Your task to perform on an android device: View the shopping cart on amazon. Add apple airpods pro to the cart on amazon Image 0: 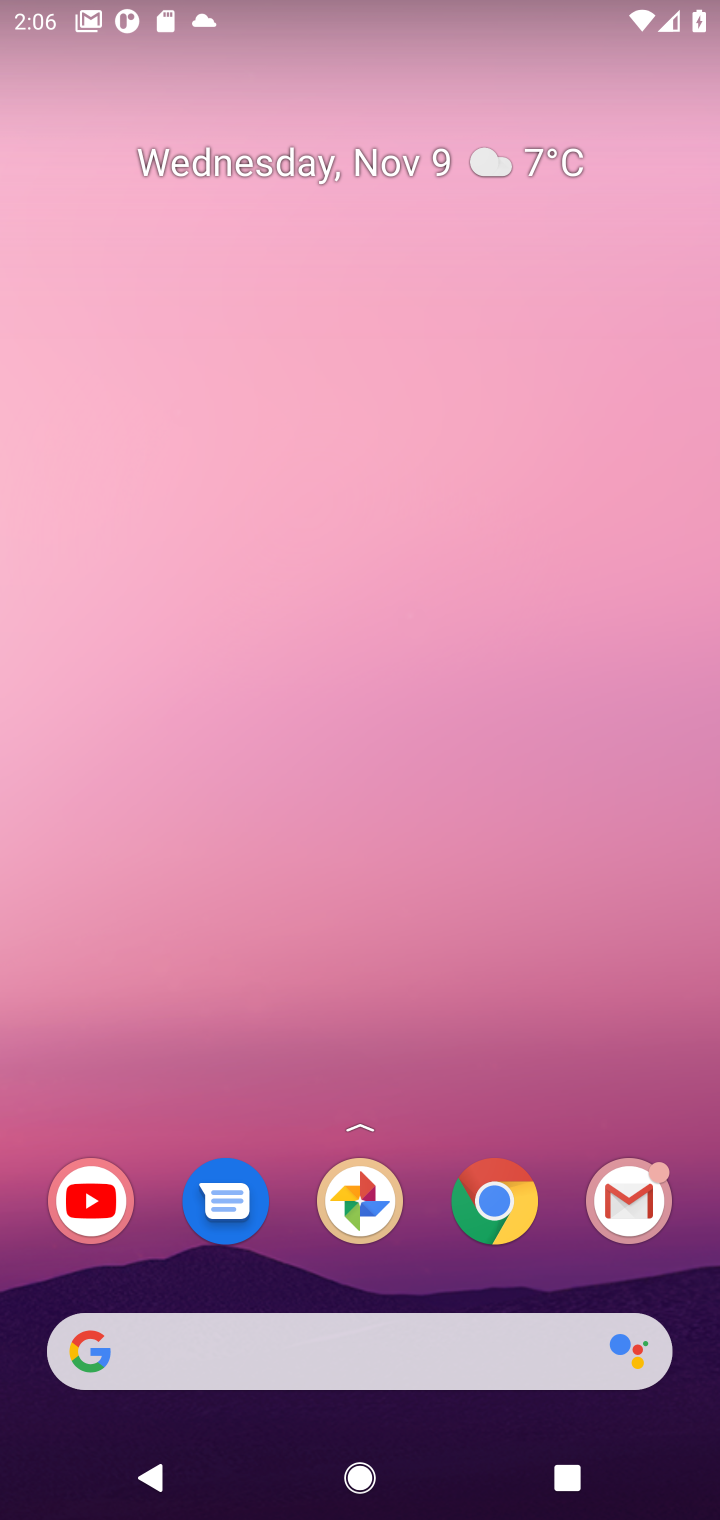
Step 0: click (281, 1364)
Your task to perform on an android device: View the shopping cart on amazon. Add apple airpods pro to the cart on amazon Image 1: 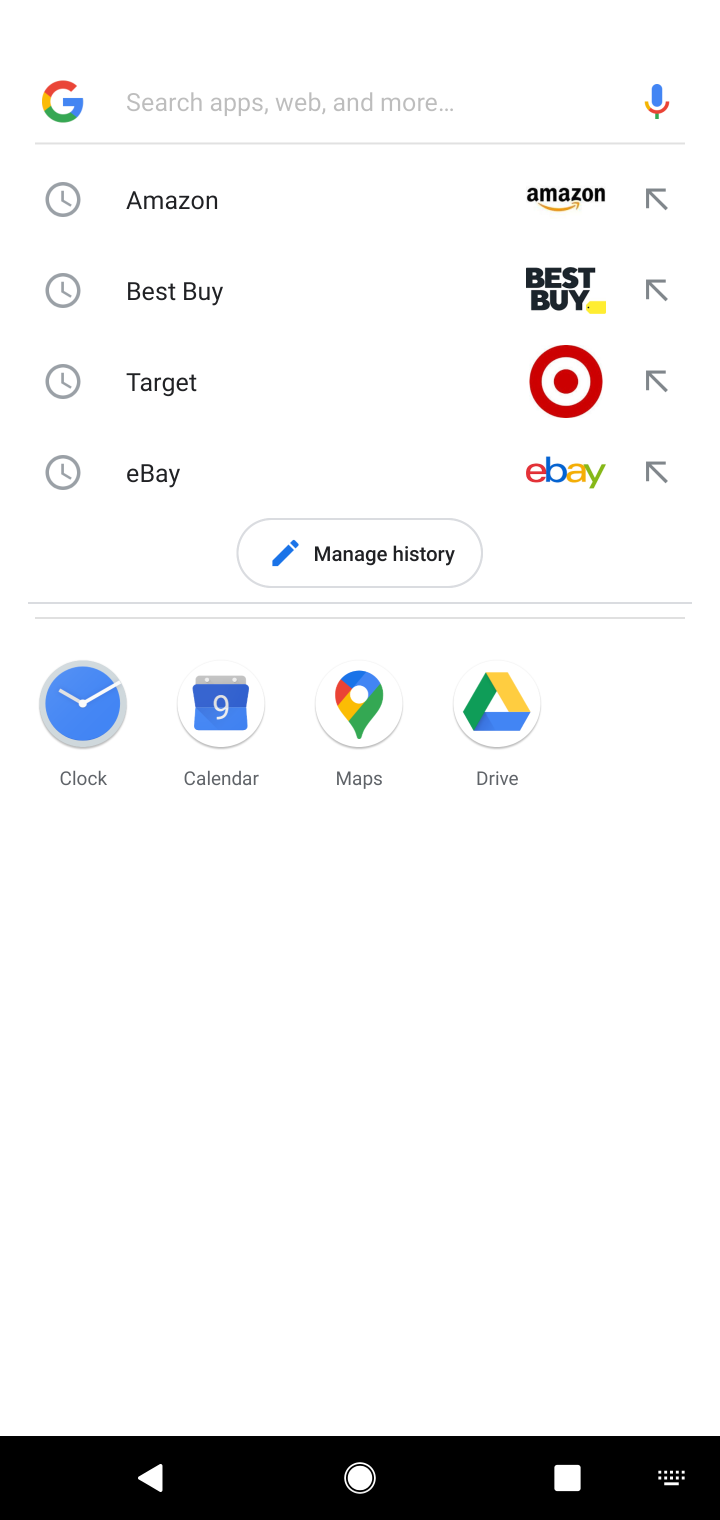
Step 1: click (263, 182)
Your task to perform on an android device: View the shopping cart on amazon. Add apple airpods pro to the cart on amazon Image 2: 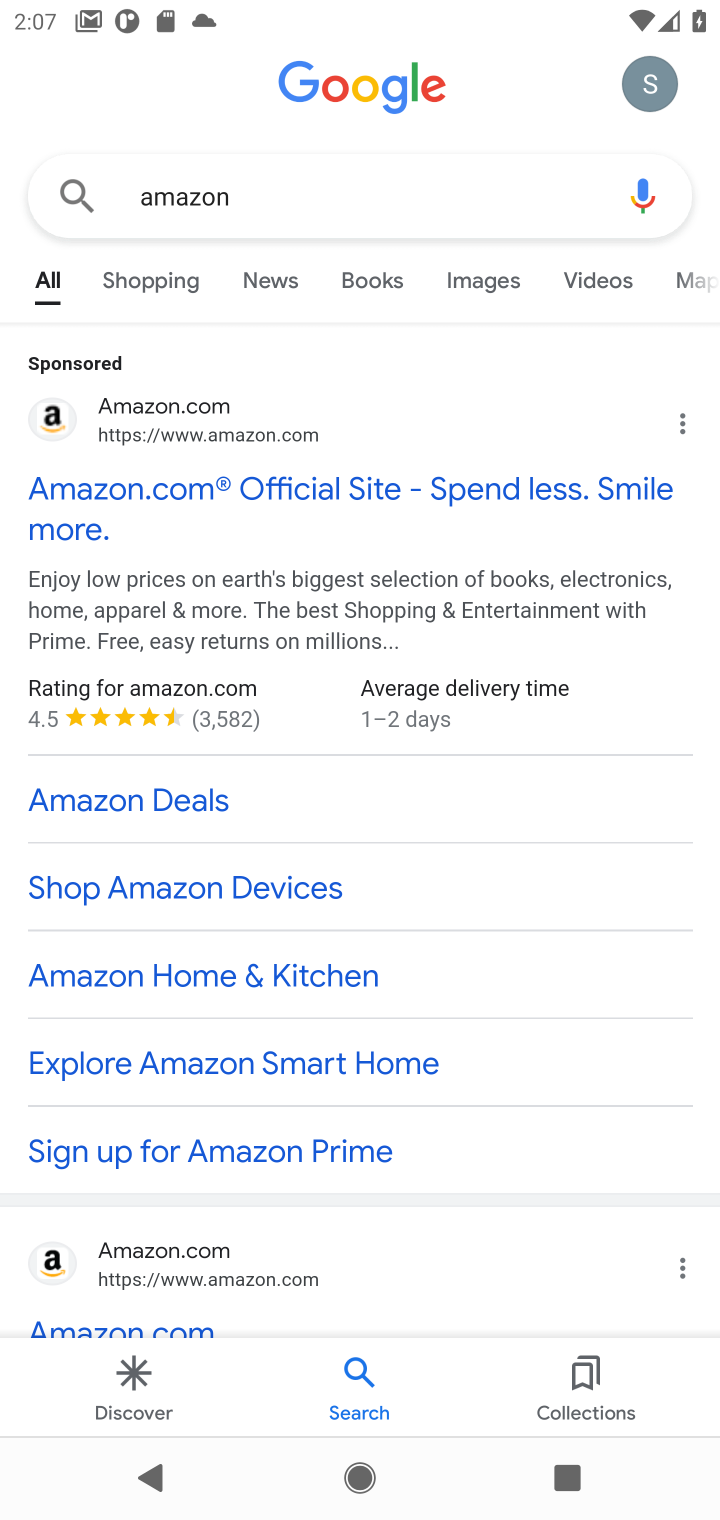
Step 2: click (183, 418)
Your task to perform on an android device: View the shopping cart on amazon. Add apple airpods pro to the cart on amazon Image 3: 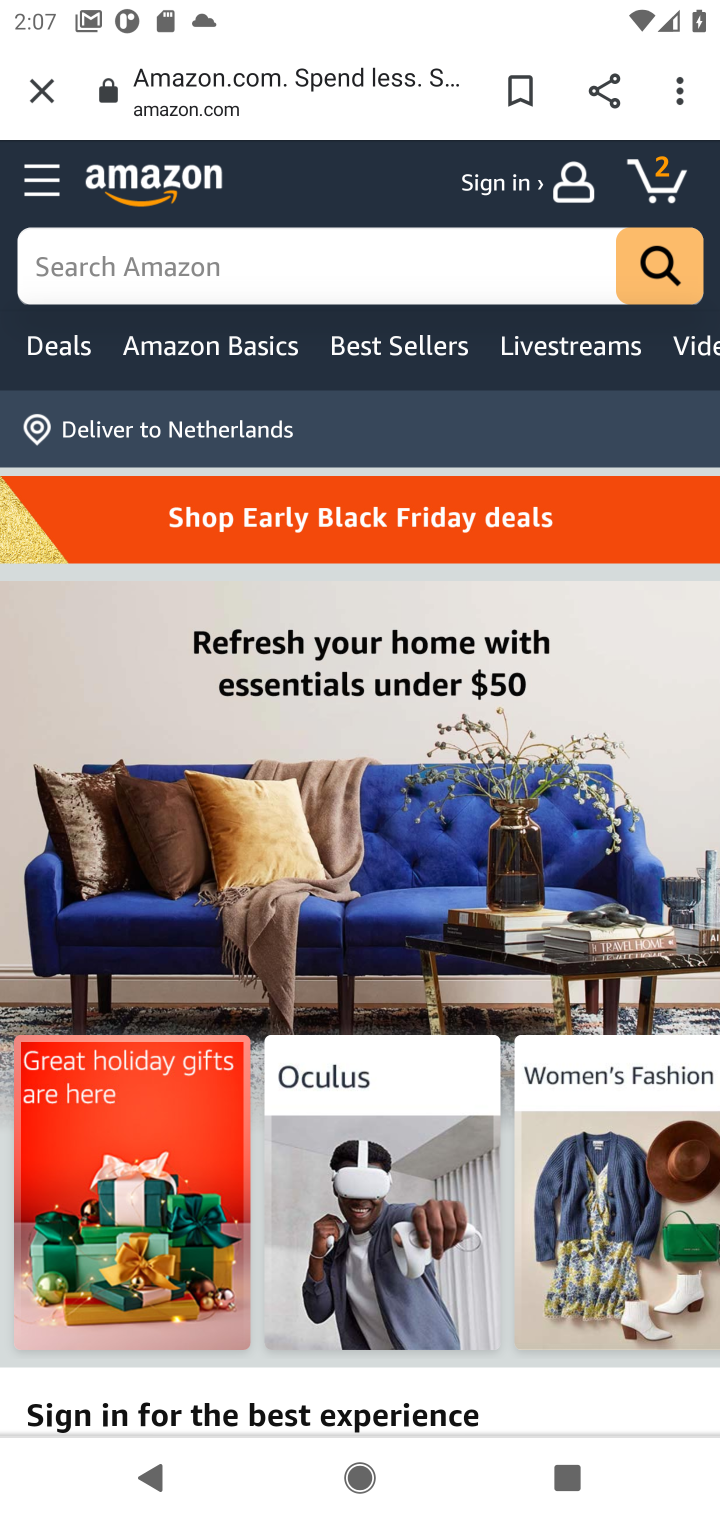
Step 3: click (282, 257)
Your task to perform on an android device: View the shopping cart on amazon. Add apple airpods pro to the cart on amazon Image 4: 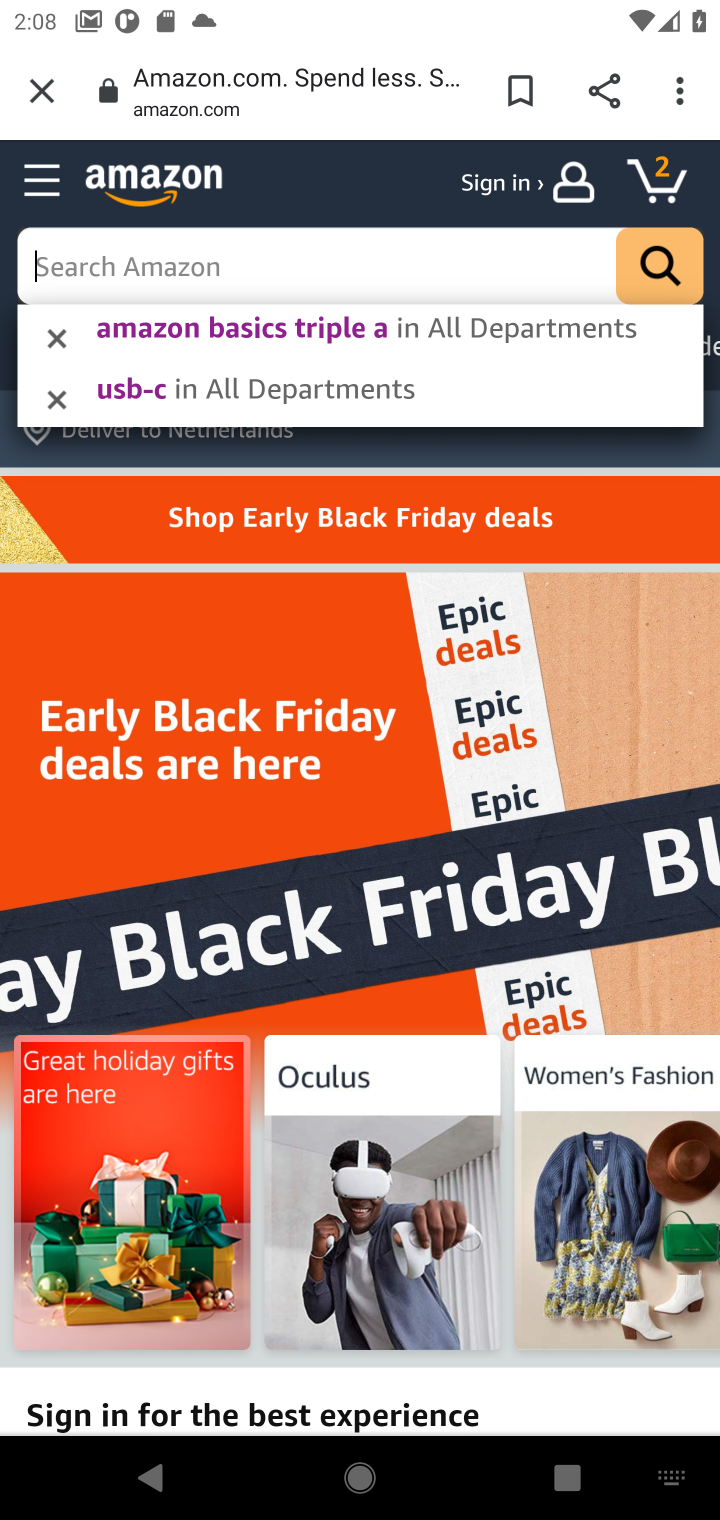
Step 4: type "apple airpods pro "
Your task to perform on an android device: View the shopping cart on amazon. Add apple airpods pro to the cart on amazon Image 5: 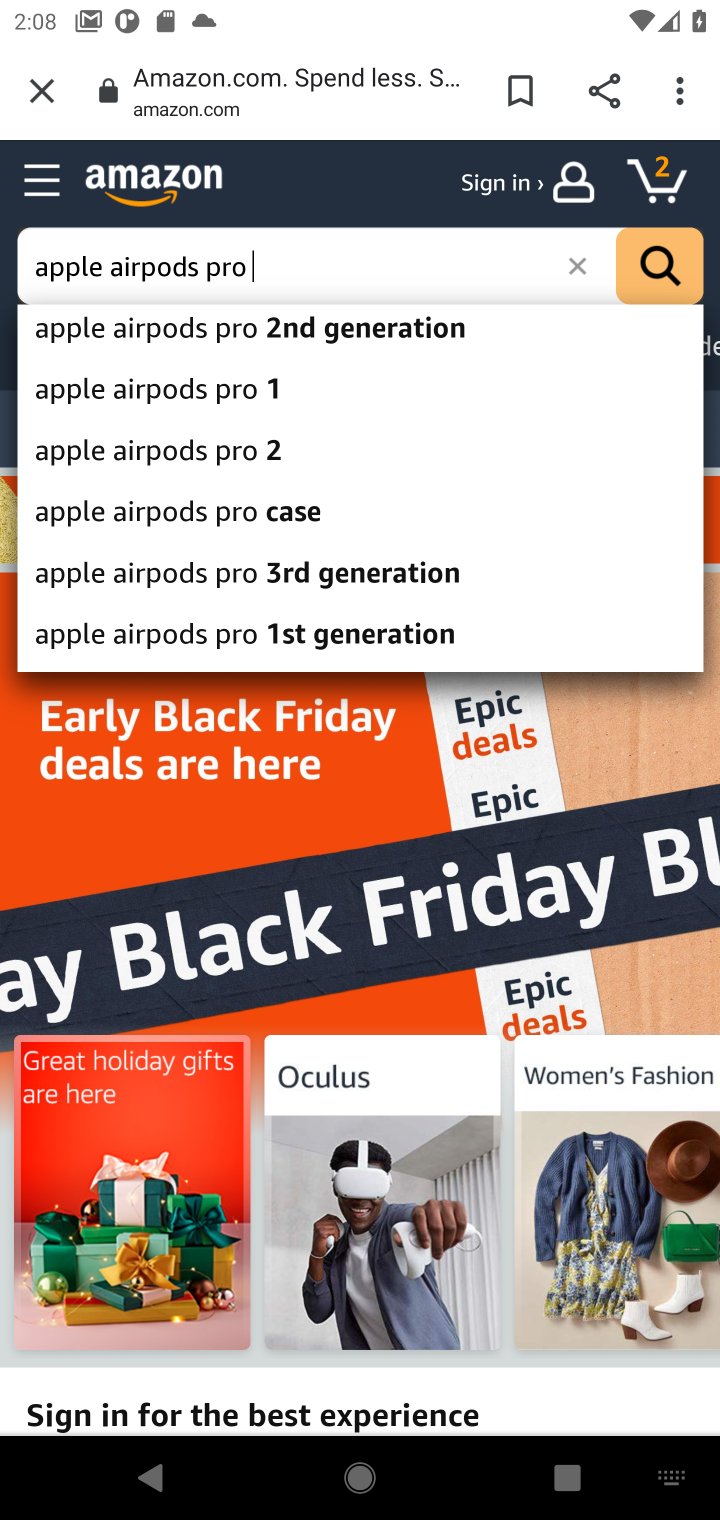
Step 5: click (244, 388)
Your task to perform on an android device: View the shopping cart on amazon. Add apple airpods pro to the cart on amazon Image 6: 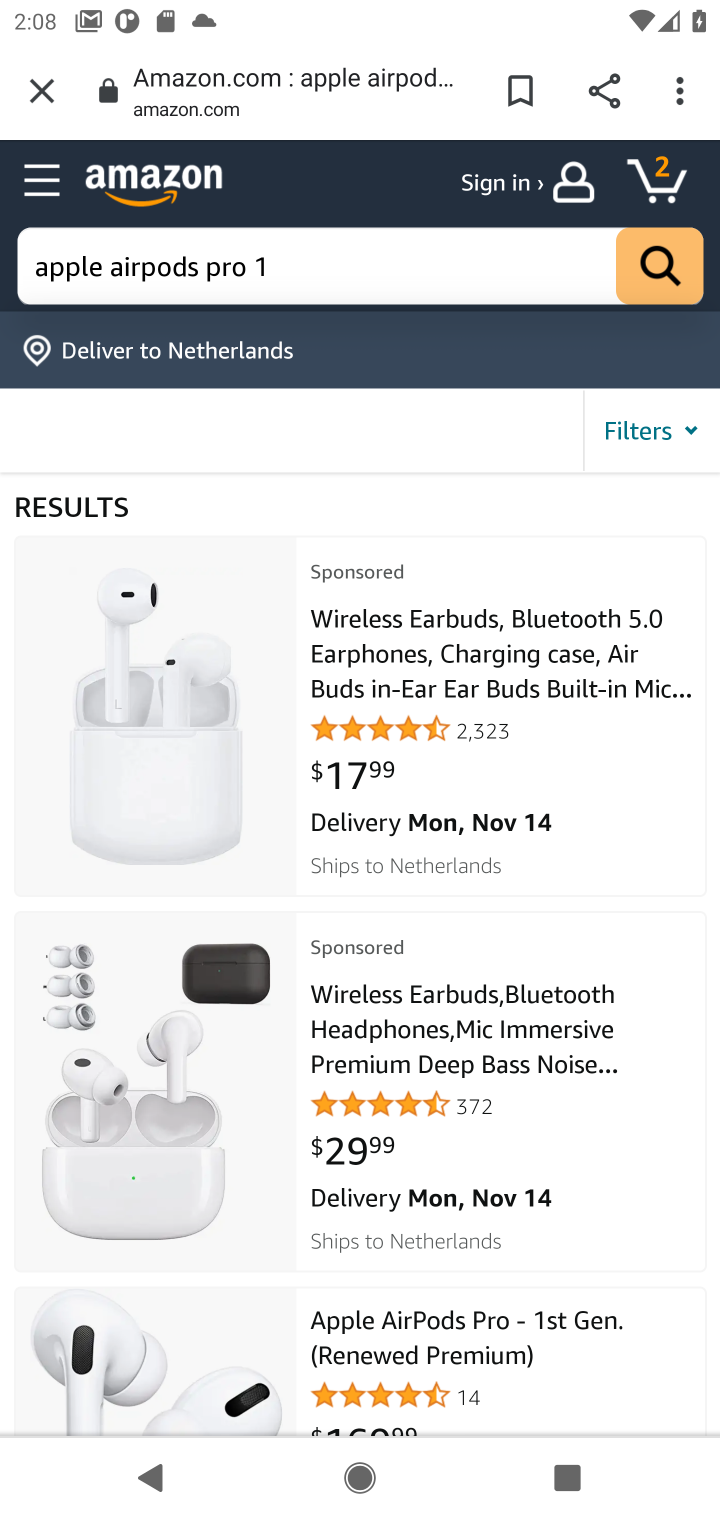
Step 6: click (354, 706)
Your task to perform on an android device: View the shopping cart on amazon. Add apple airpods pro to the cart on amazon Image 7: 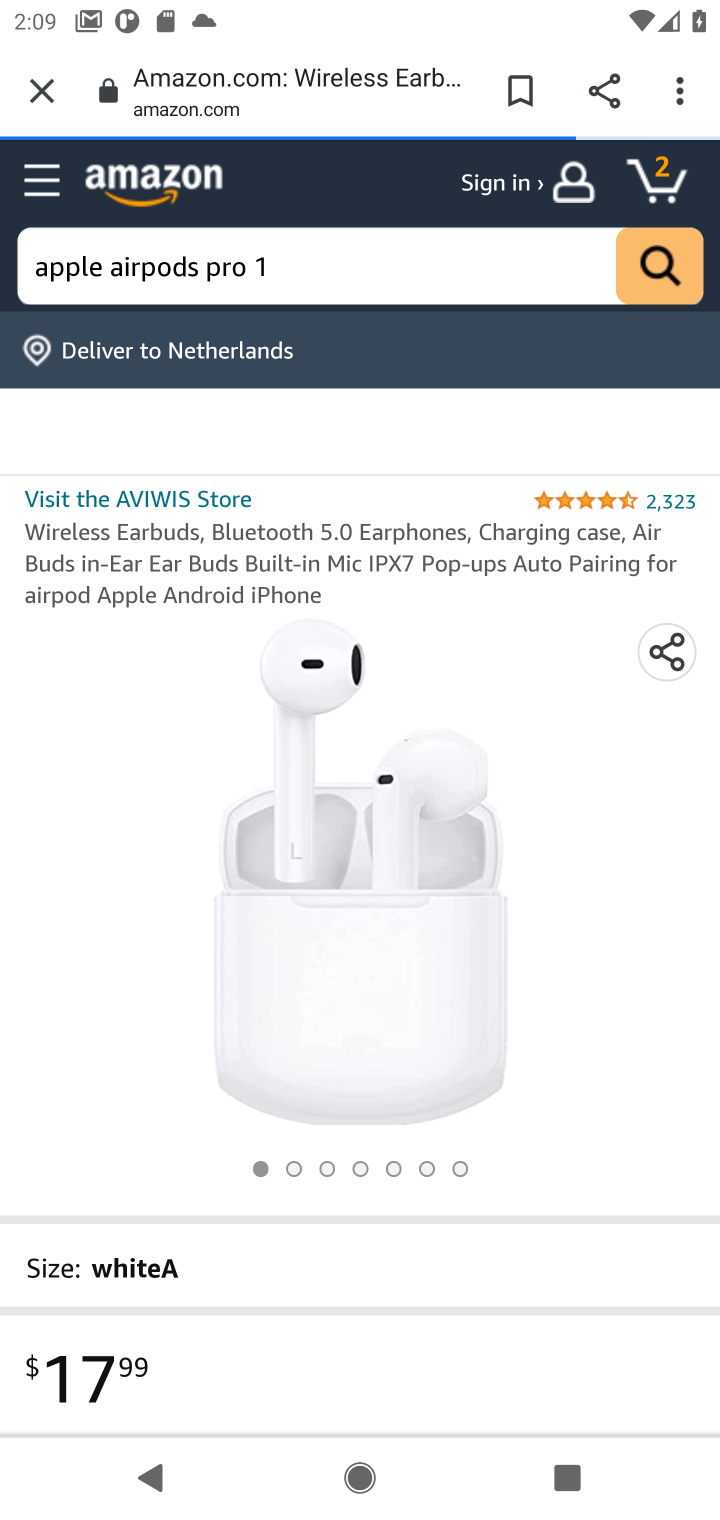
Step 7: drag from (398, 1024) to (358, 527)
Your task to perform on an android device: View the shopping cart on amazon. Add apple airpods pro to the cart on amazon Image 8: 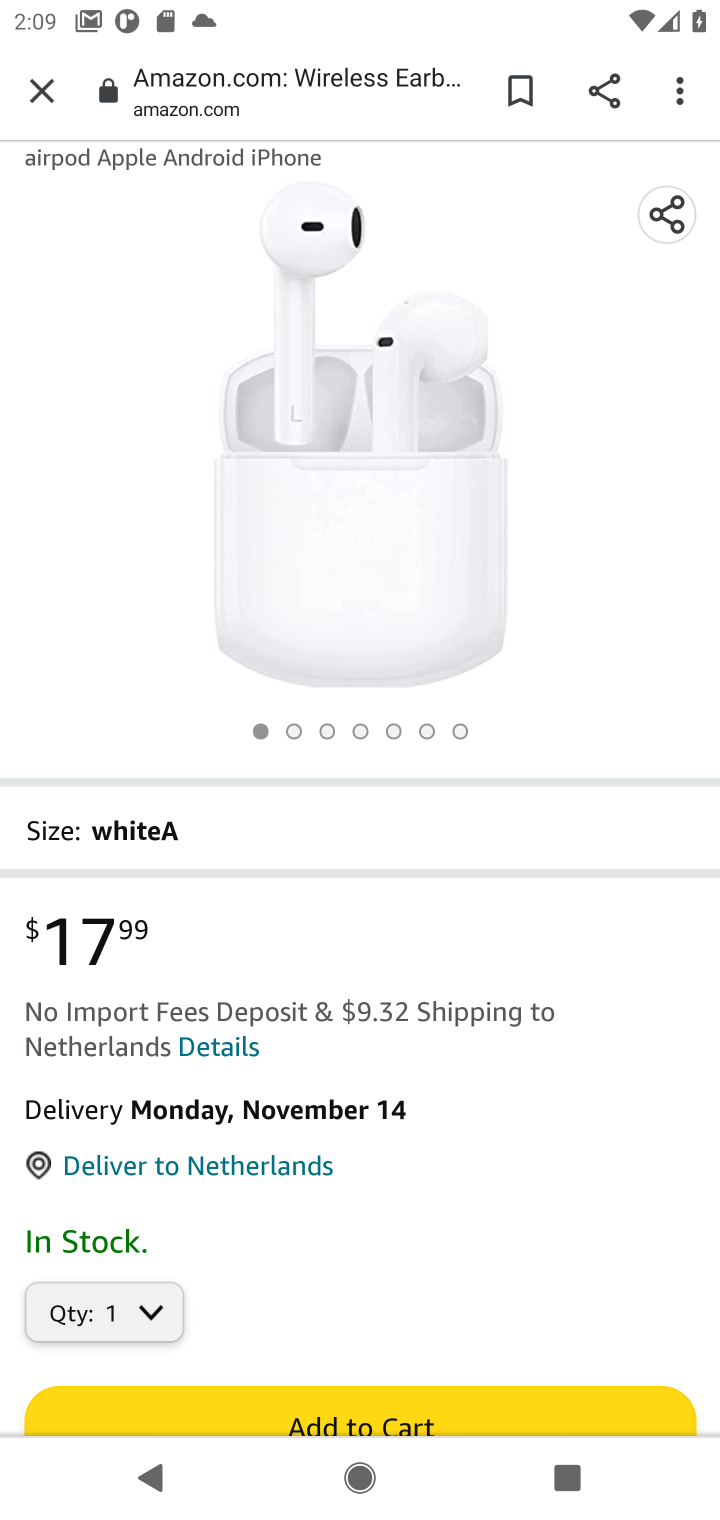
Step 8: drag from (370, 1055) to (354, 672)
Your task to perform on an android device: View the shopping cart on amazon. Add apple airpods pro to the cart on amazon Image 9: 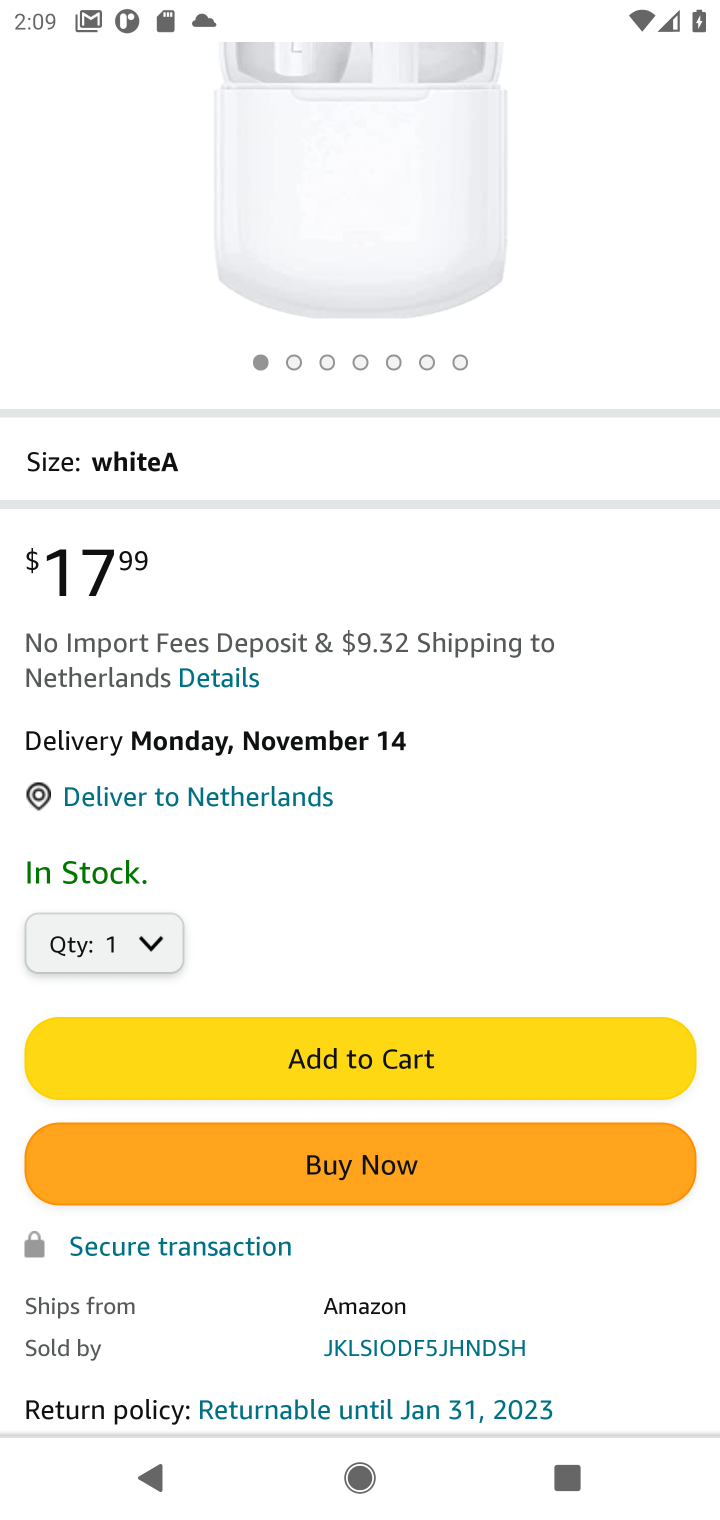
Step 9: click (385, 1049)
Your task to perform on an android device: View the shopping cart on amazon. Add apple airpods pro to the cart on amazon Image 10: 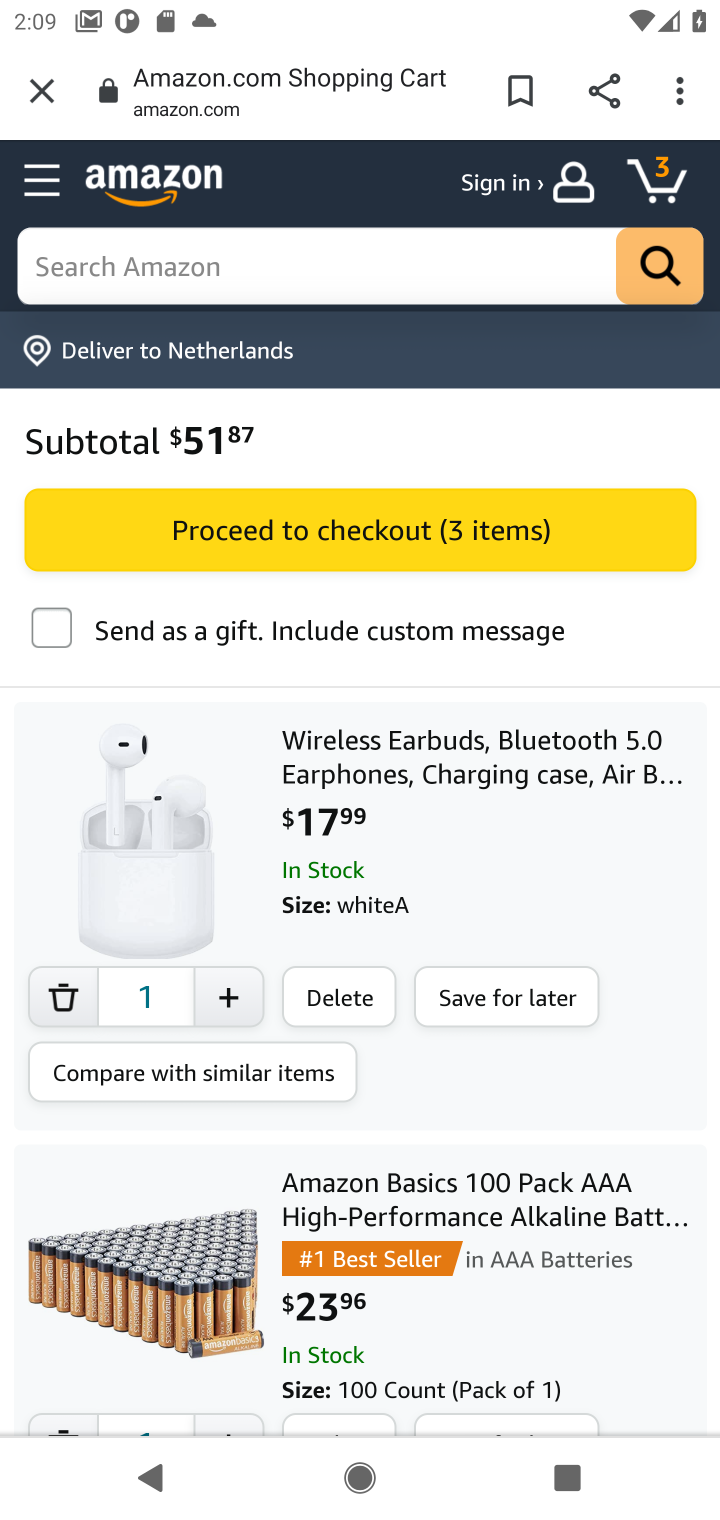
Step 10: task complete